Your task to perform on an android device: open sync settings in chrome Image 0: 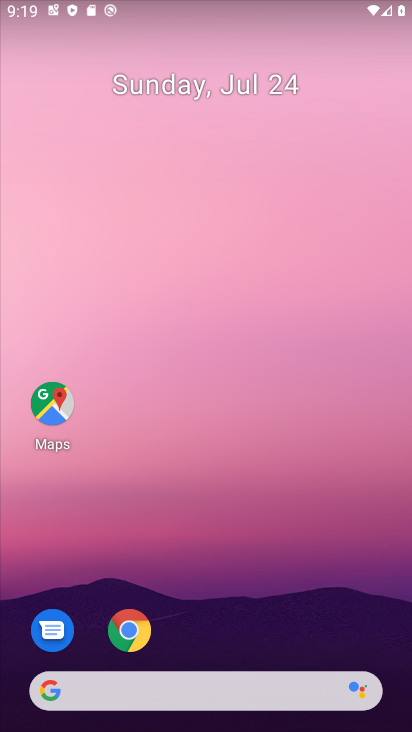
Step 0: click (124, 622)
Your task to perform on an android device: open sync settings in chrome Image 1: 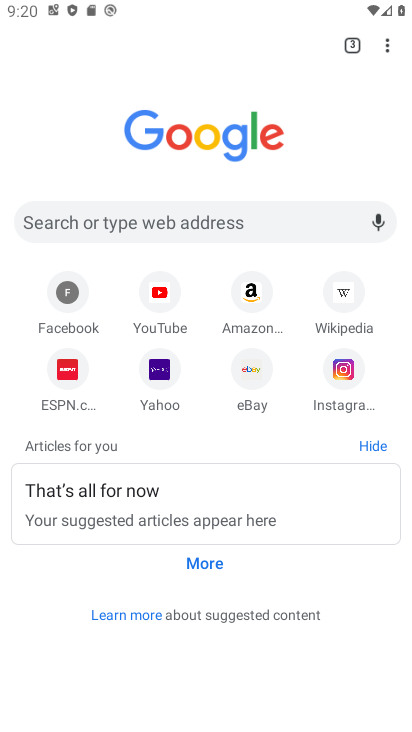
Step 1: click (382, 52)
Your task to perform on an android device: open sync settings in chrome Image 2: 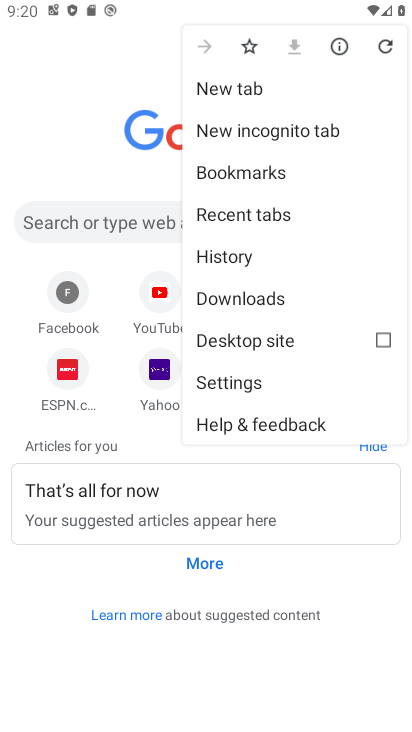
Step 2: click (257, 396)
Your task to perform on an android device: open sync settings in chrome Image 3: 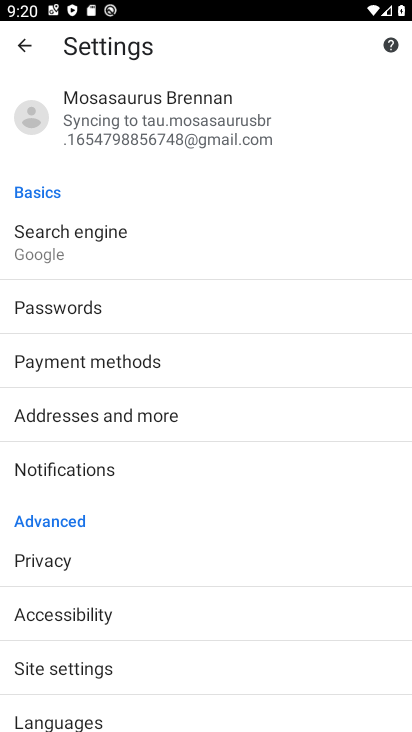
Step 3: click (181, 132)
Your task to perform on an android device: open sync settings in chrome Image 4: 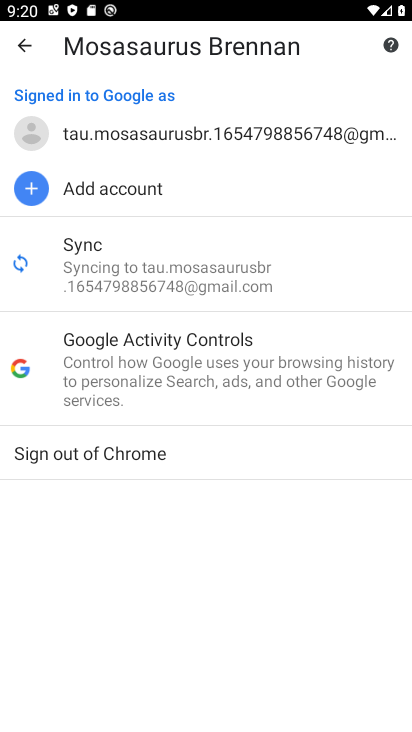
Step 4: click (141, 266)
Your task to perform on an android device: open sync settings in chrome Image 5: 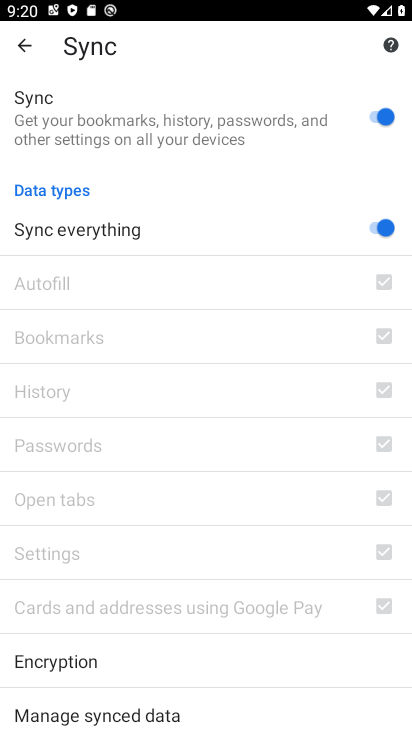
Step 5: task complete